Your task to perform on an android device: Go to wifi settings Image 0: 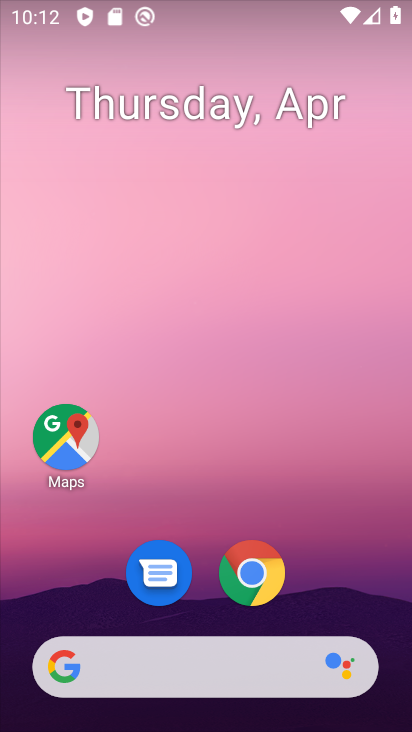
Step 0: drag from (326, 607) to (294, 137)
Your task to perform on an android device: Go to wifi settings Image 1: 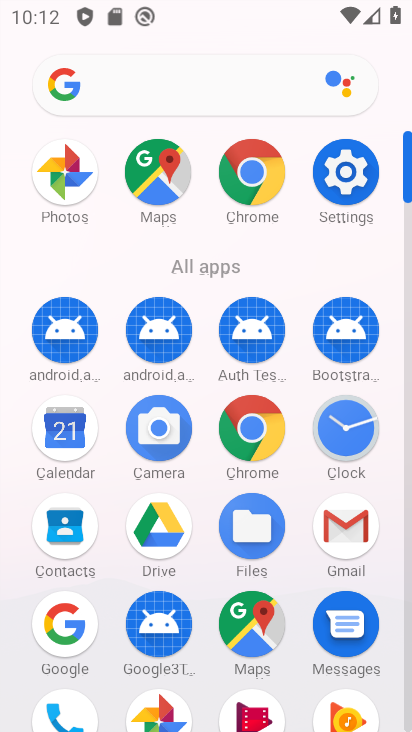
Step 1: click (349, 172)
Your task to perform on an android device: Go to wifi settings Image 2: 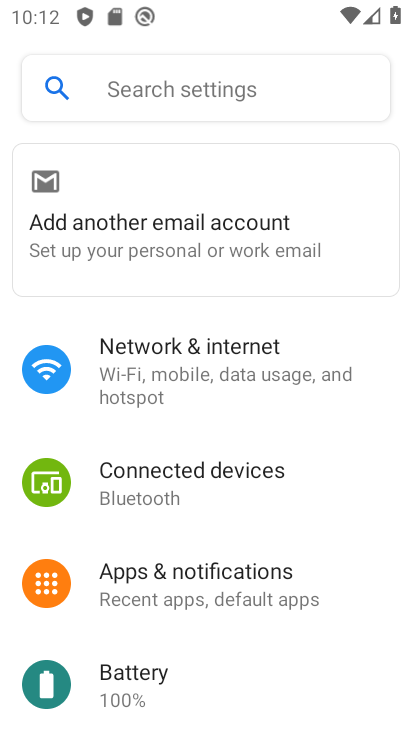
Step 2: drag from (221, 616) to (204, 274)
Your task to perform on an android device: Go to wifi settings Image 3: 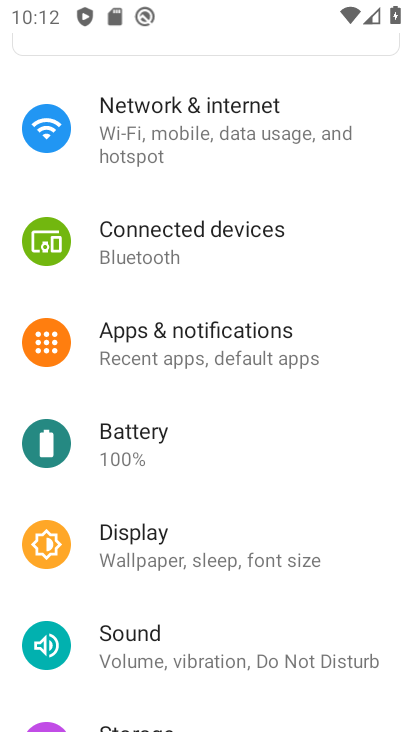
Step 3: click (182, 120)
Your task to perform on an android device: Go to wifi settings Image 4: 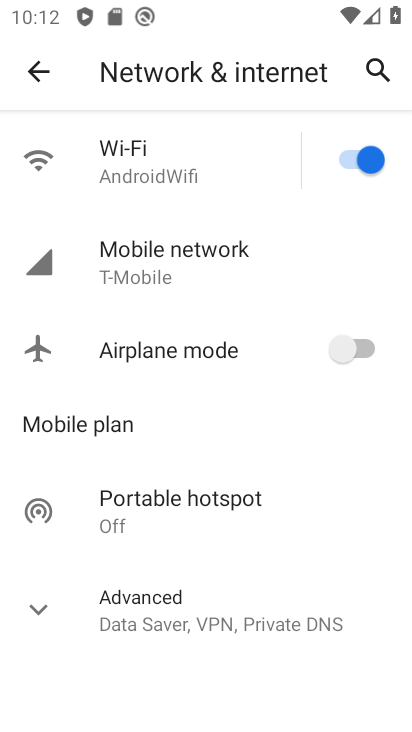
Step 4: click (192, 169)
Your task to perform on an android device: Go to wifi settings Image 5: 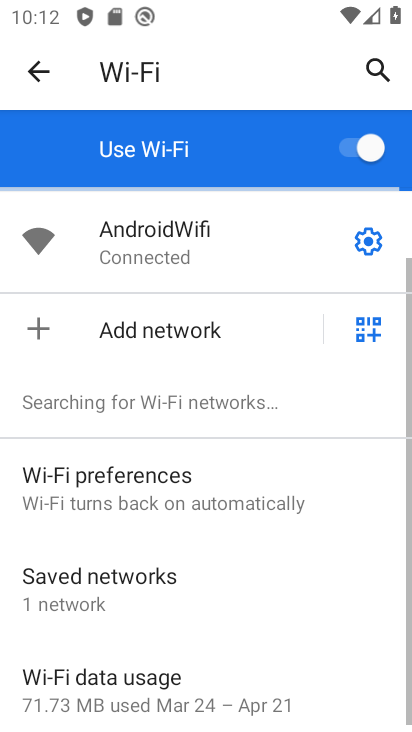
Step 5: task complete